Your task to perform on an android device: star an email in the gmail app Image 0: 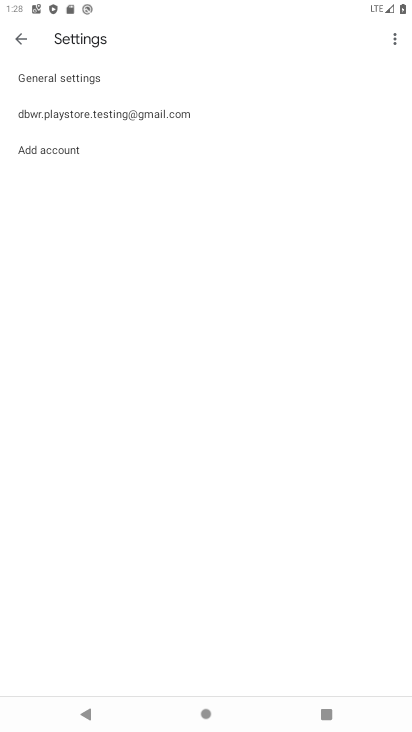
Step 0: press home button
Your task to perform on an android device: star an email in the gmail app Image 1: 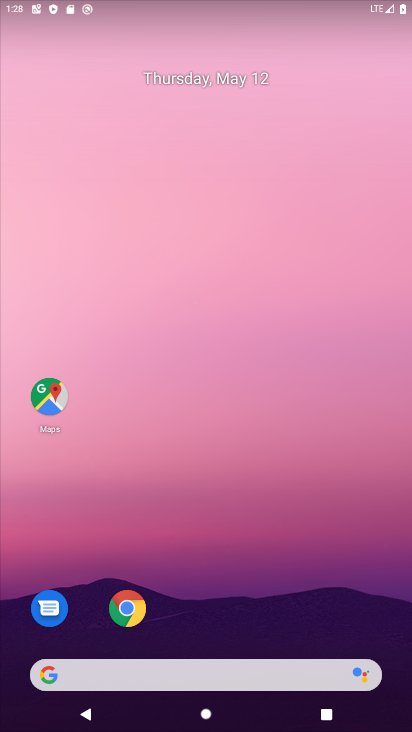
Step 1: drag from (323, 612) to (359, 1)
Your task to perform on an android device: star an email in the gmail app Image 2: 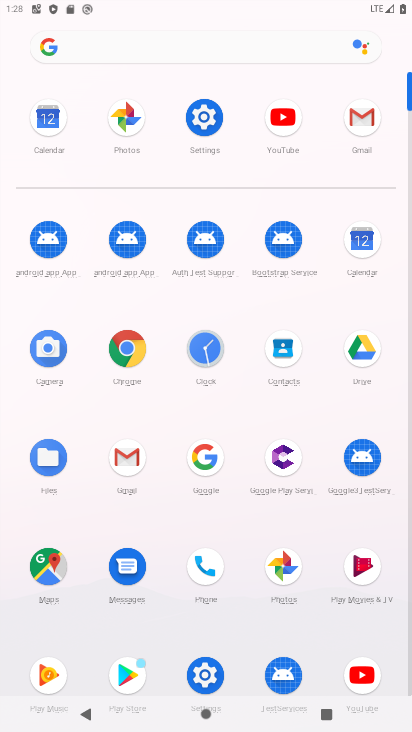
Step 2: click (363, 114)
Your task to perform on an android device: star an email in the gmail app Image 3: 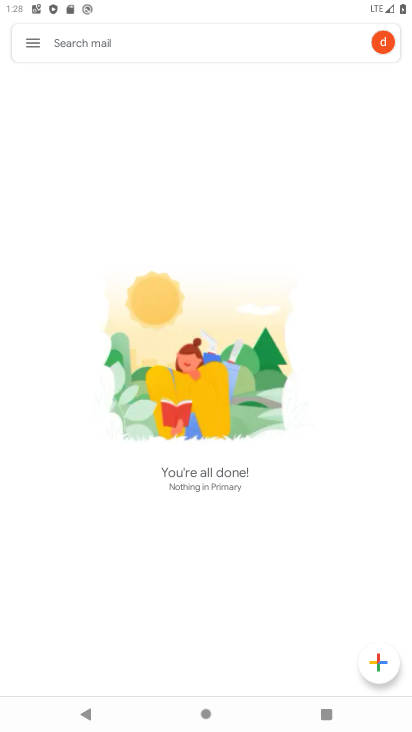
Step 3: click (33, 45)
Your task to perform on an android device: star an email in the gmail app Image 4: 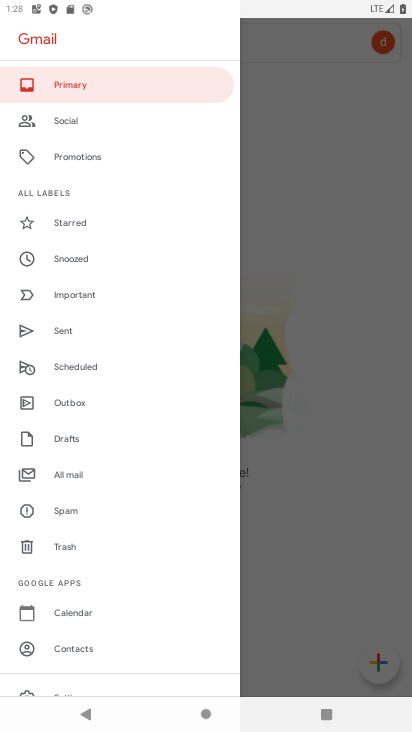
Step 4: click (64, 475)
Your task to perform on an android device: star an email in the gmail app Image 5: 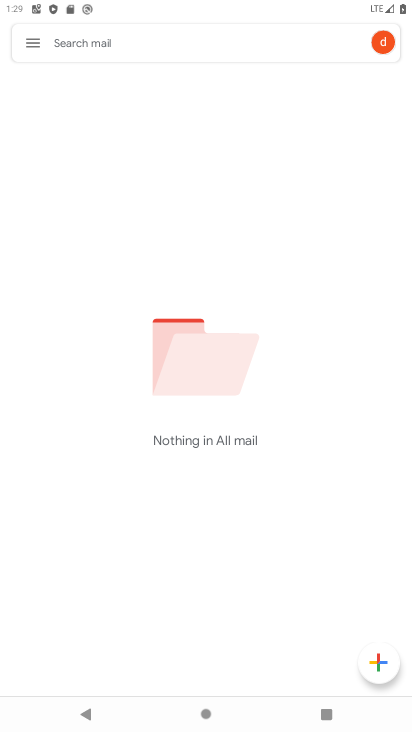
Step 5: task complete